Your task to perform on an android device: read, delete, or share a saved page in the chrome app Image 0: 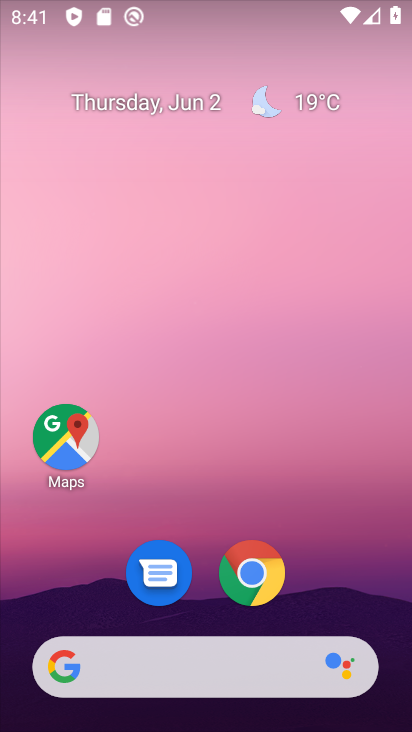
Step 0: click (245, 579)
Your task to perform on an android device: read, delete, or share a saved page in the chrome app Image 1: 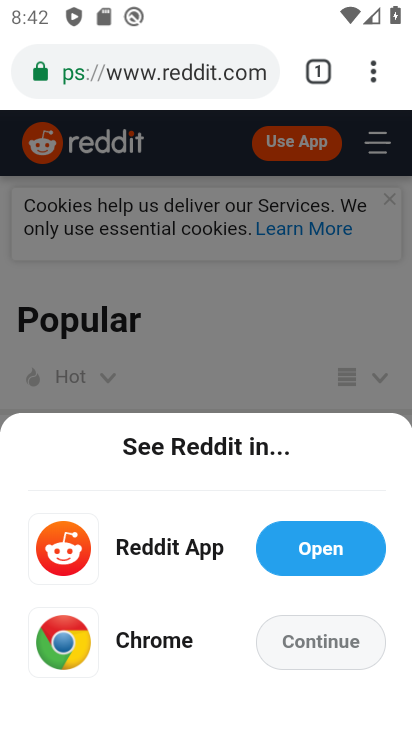
Step 1: click (368, 70)
Your task to perform on an android device: read, delete, or share a saved page in the chrome app Image 2: 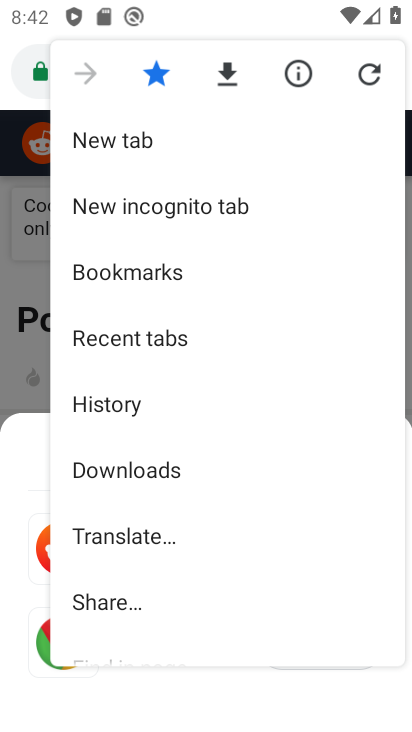
Step 2: click (157, 459)
Your task to perform on an android device: read, delete, or share a saved page in the chrome app Image 3: 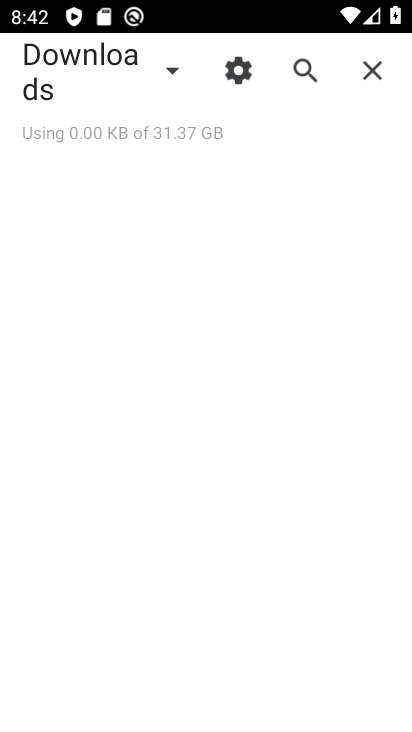
Step 3: click (164, 67)
Your task to perform on an android device: read, delete, or share a saved page in the chrome app Image 4: 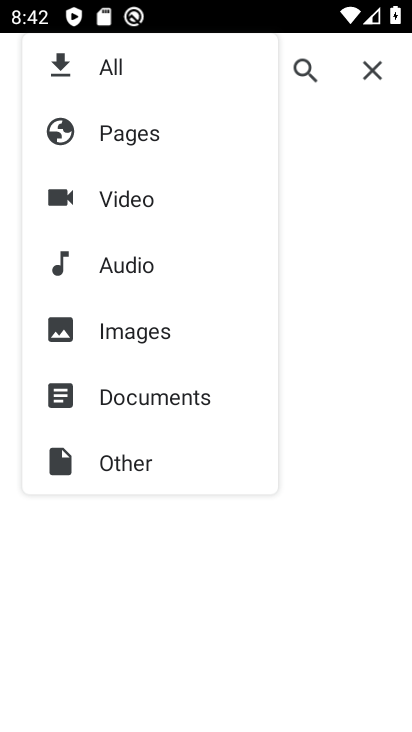
Step 4: click (139, 144)
Your task to perform on an android device: read, delete, or share a saved page in the chrome app Image 5: 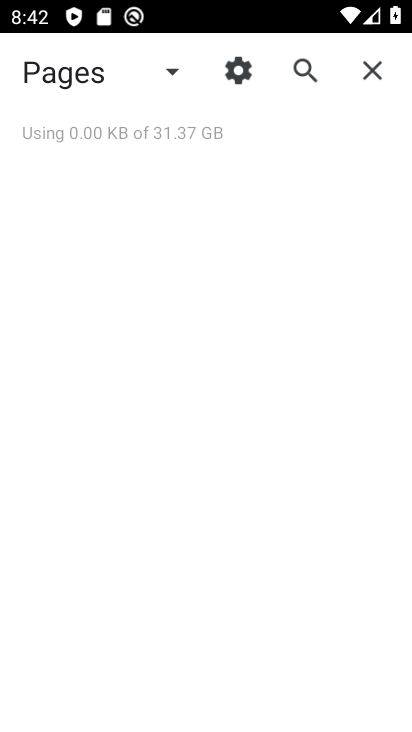
Step 5: task complete